Your task to perform on an android device: turn off notifications in google photos Image 0: 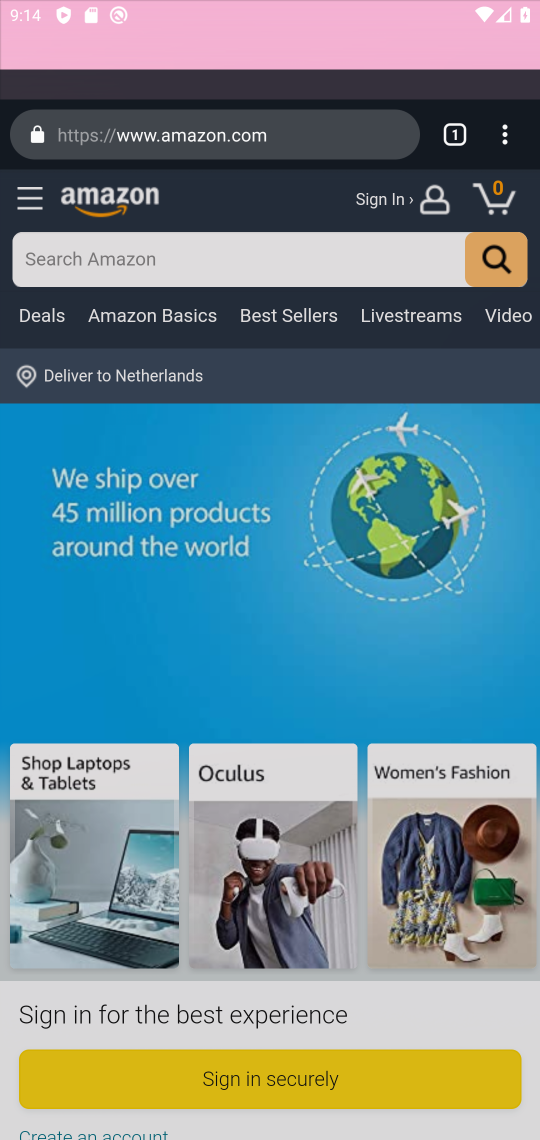
Step 0: press back button
Your task to perform on an android device: turn off notifications in google photos Image 1: 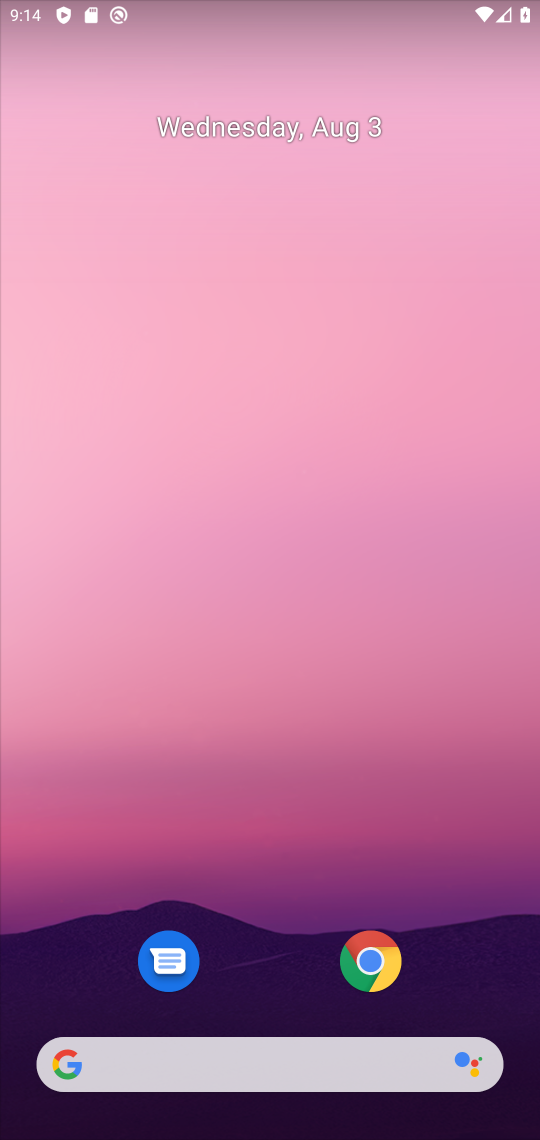
Step 1: drag from (305, 996) to (237, 16)
Your task to perform on an android device: turn off notifications in google photos Image 2: 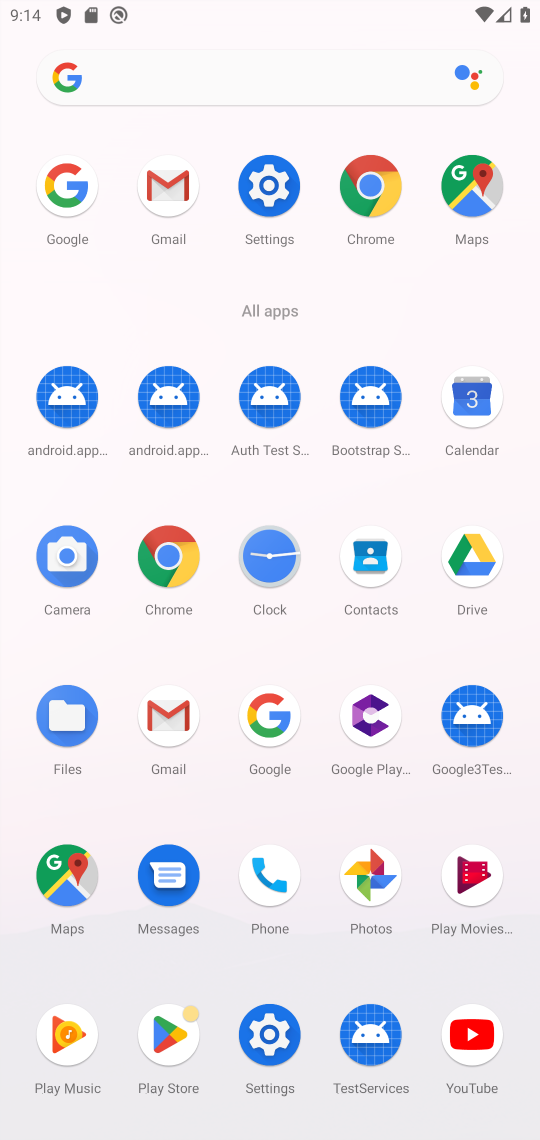
Step 2: click (372, 878)
Your task to perform on an android device: turn off notifications in google photos Image 3: 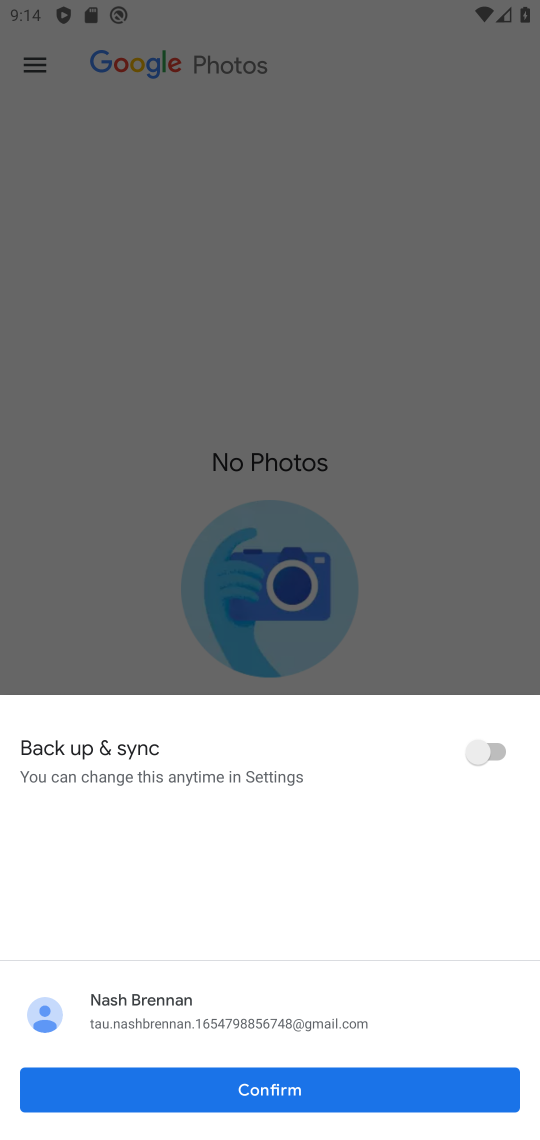
Step 3: click (388, 1087)
Your task to perform on an android device: turn off notifications in google photos Image 4: 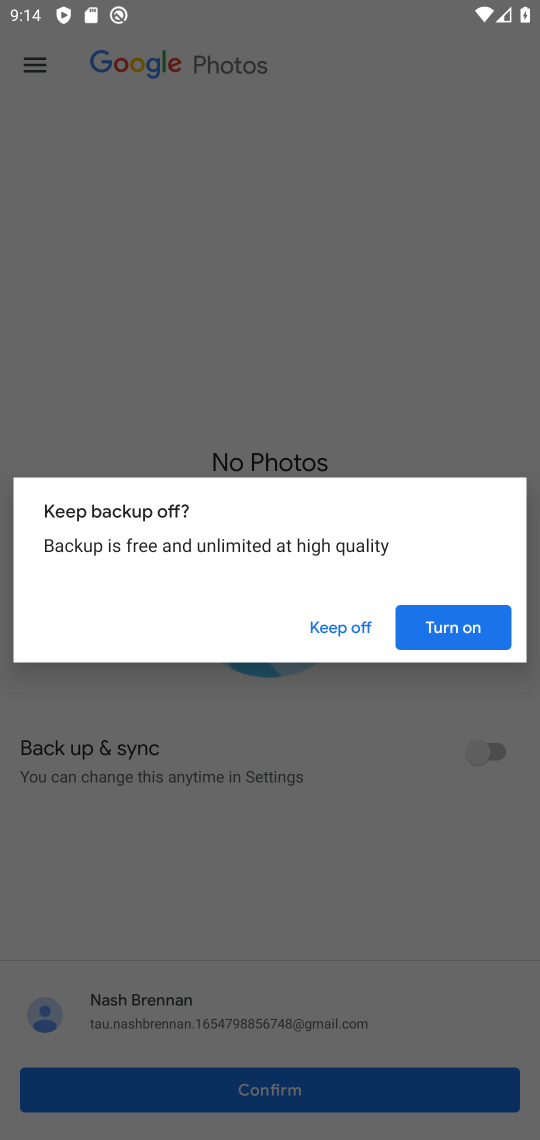
Step 4: click (344, 624)
Your task to perform on an android device: turn off notifications in google photos Image 5: 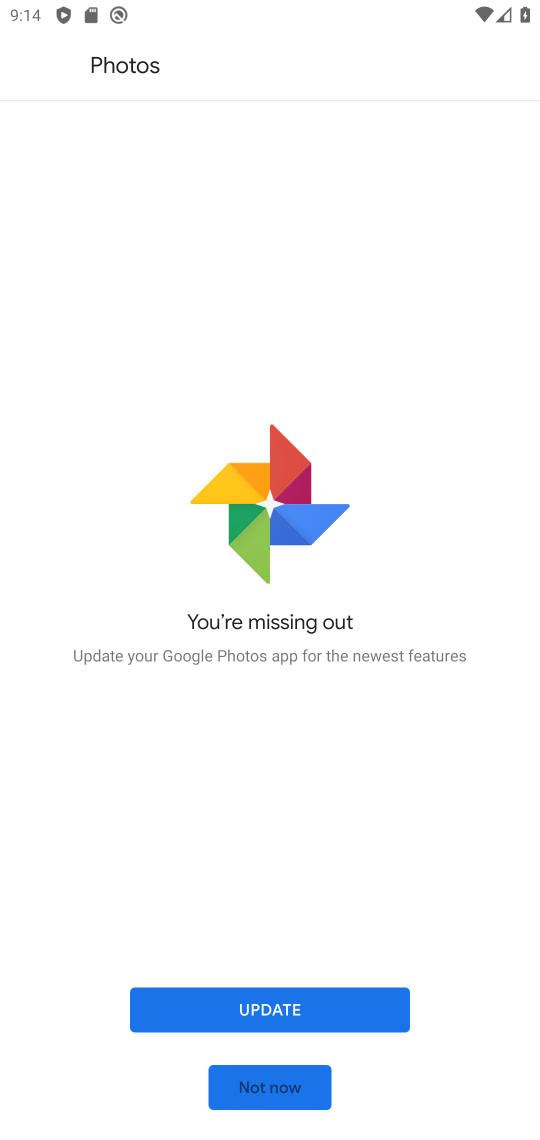
Step 5: click (288, 1090)
Your task to perform on an android device: turn off notifications in google photos Image 6: 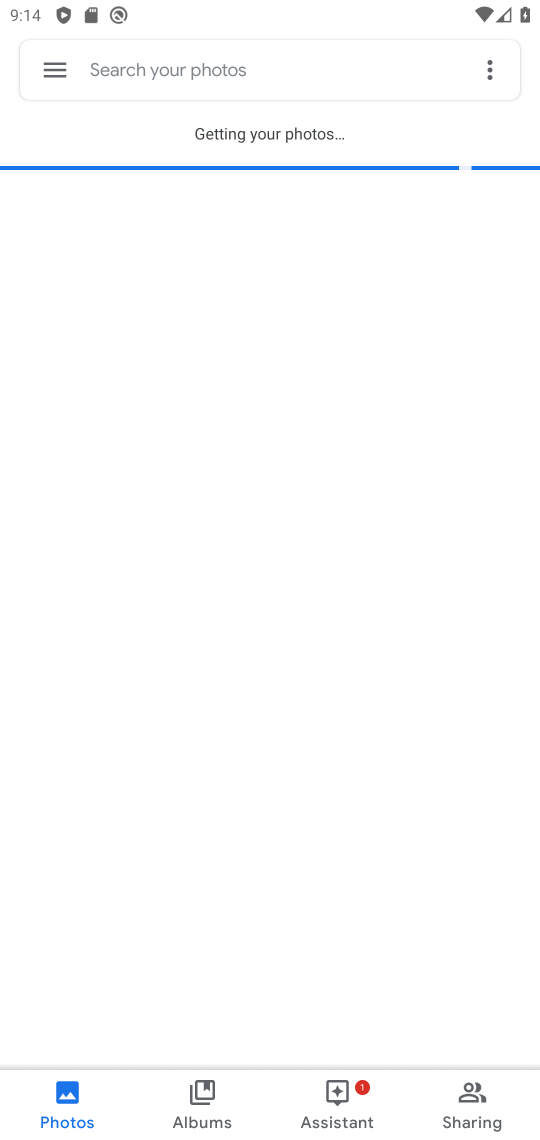
Step 6: click (59, 68)
Your task to perform on an android device: turn off notifications in google photos Image 7: 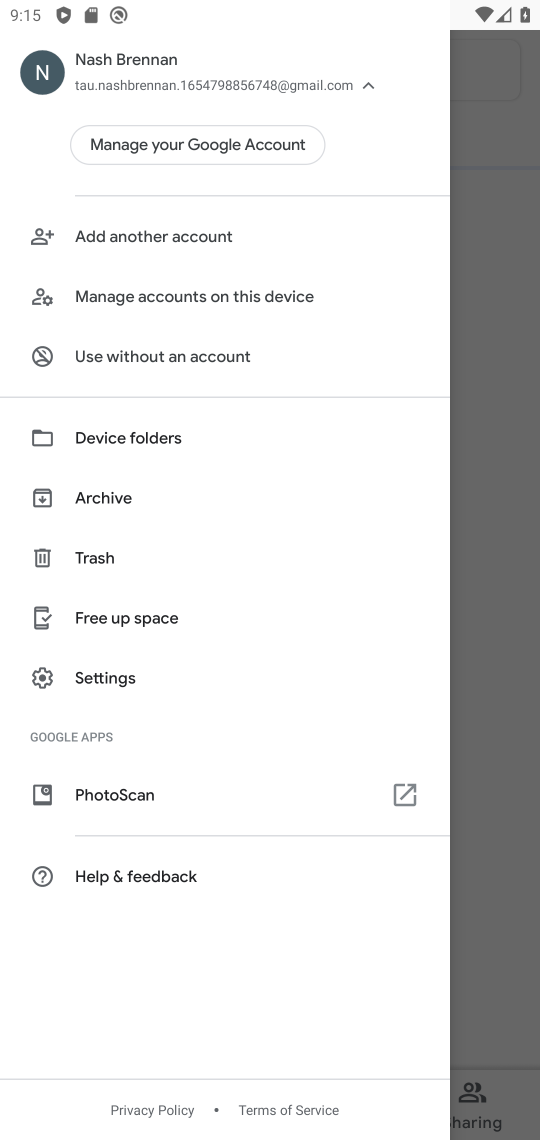
Step 7: click (68, 676)
Your task to perform on an android device: turn off notifications in google photos Image 8: 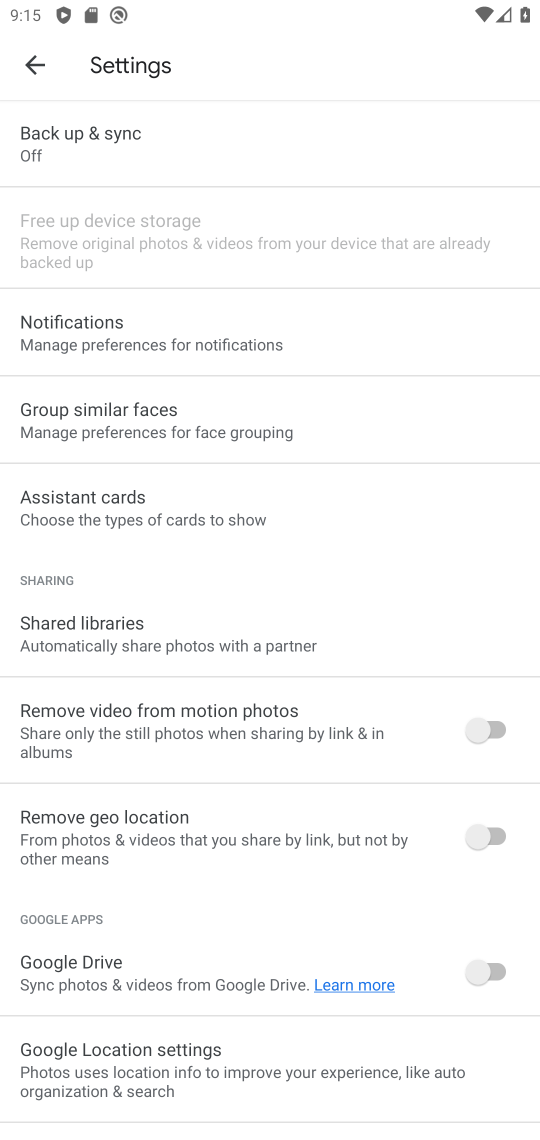
Step 8: click (98, 330)
Your task to perform on an android device: turn off notifications in google photos Image 9: 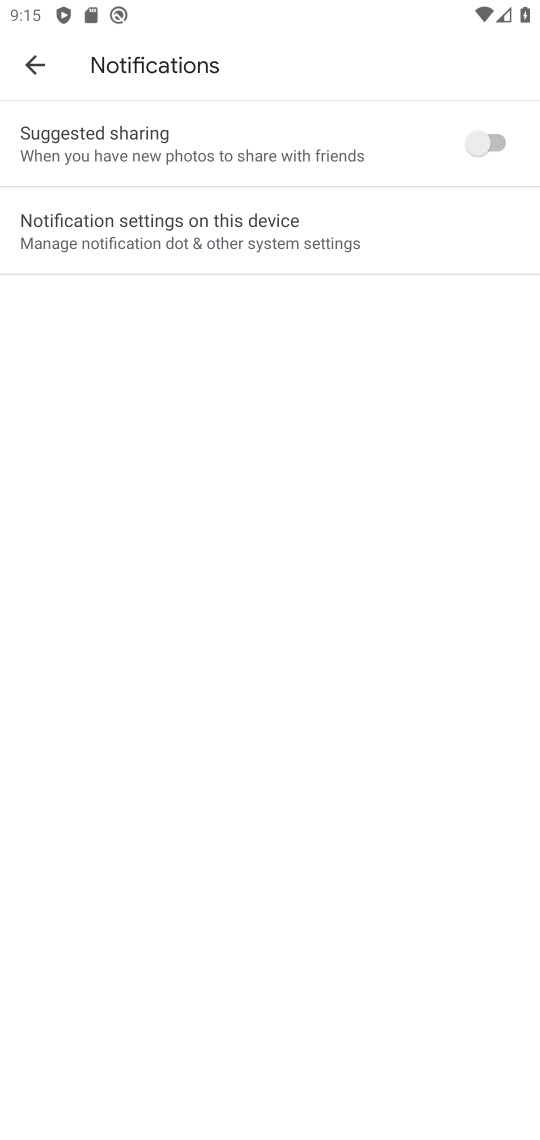
Step 9: click (360, 227)
Your task to perform on an android device: turn off notifications in google photos Image 10: 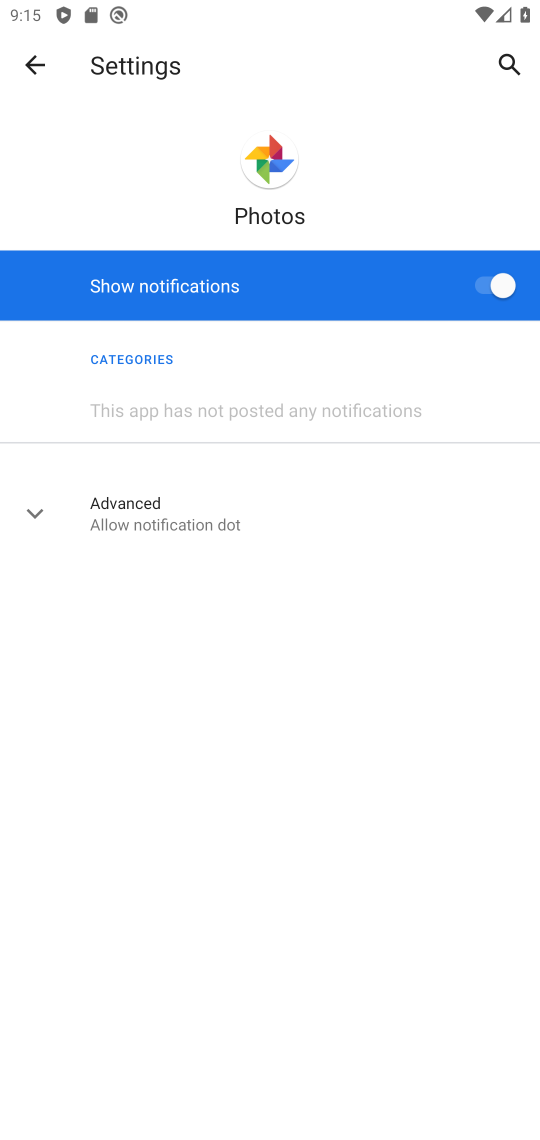
Step 10: click (512, 292)
Your task to perform on an android device: turn off notifications in google photos Image 11: 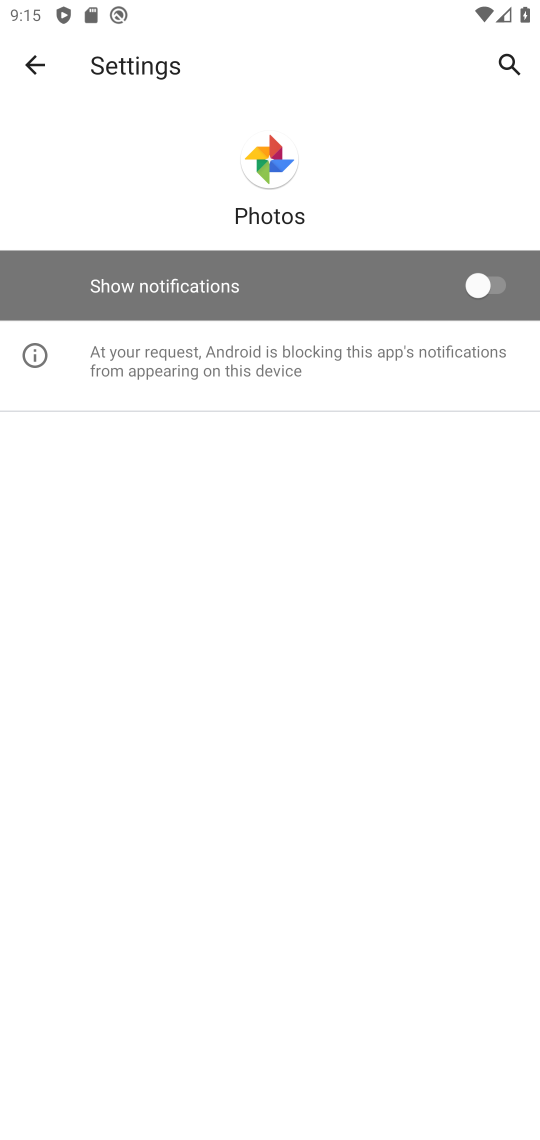
Step 11: task complete